Your task to perform on an android device: Go to display settings Image 0: 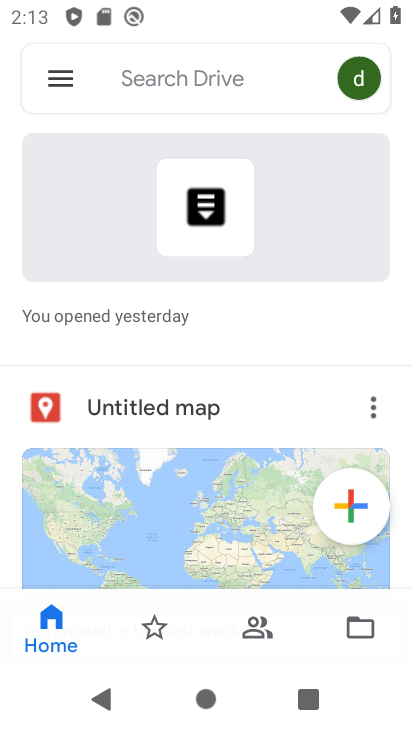
Step 0: press home button
Your task to perform on an android device: Go to display settings Image 1: 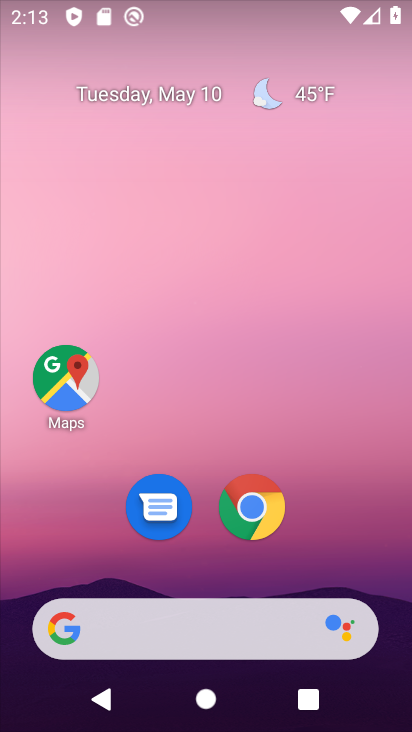
Step 1: drag from (323, 433) to (214, 153)
Your task to perform on an android device: Go to display settings Image 2: 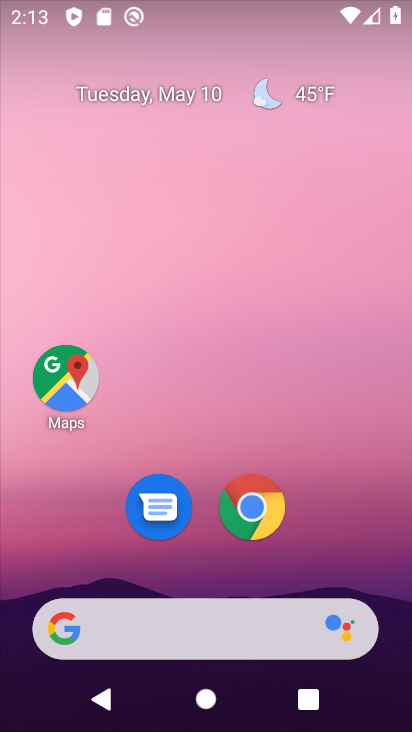
Step 2: drag from (339, 524) to (73, 96)
Your task to perform on an android device: Go to display settings Image 3: 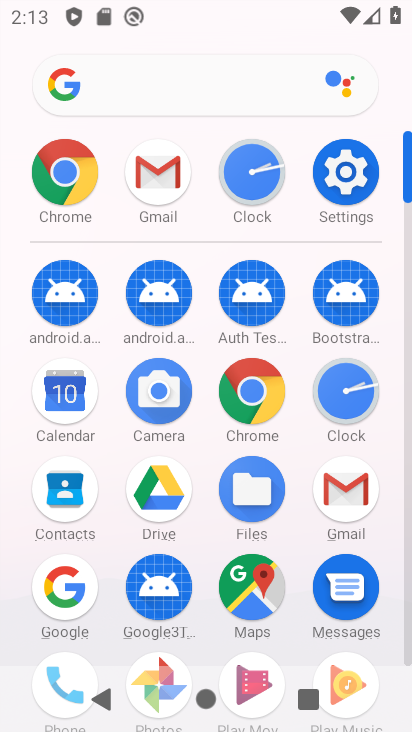
Step 3: click (342, 180)
Your task to perform on an android device: Go to display settings Image 4: 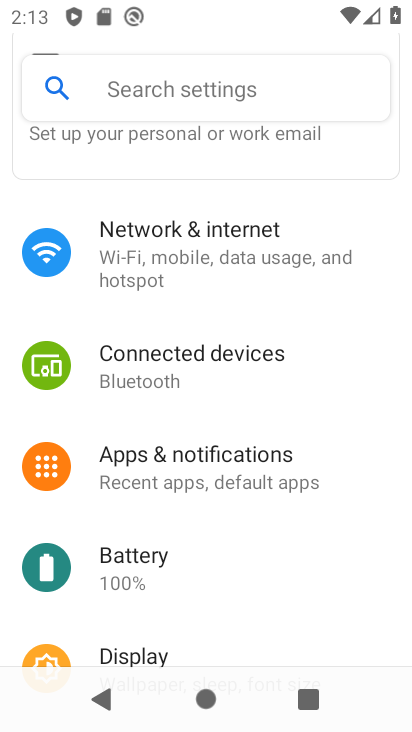
Step 4: click (176, 648)
Your task to perform on an android device: Go to display settings Image 5: 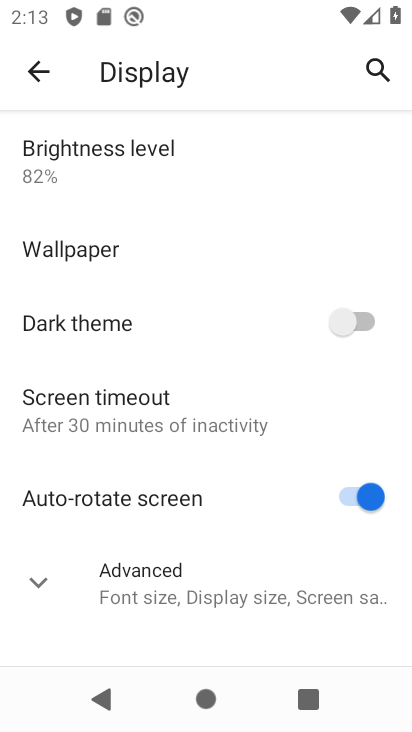
Step 5: click (165, 601)
Your task to perform on an android device: Go to display settings Image 6: 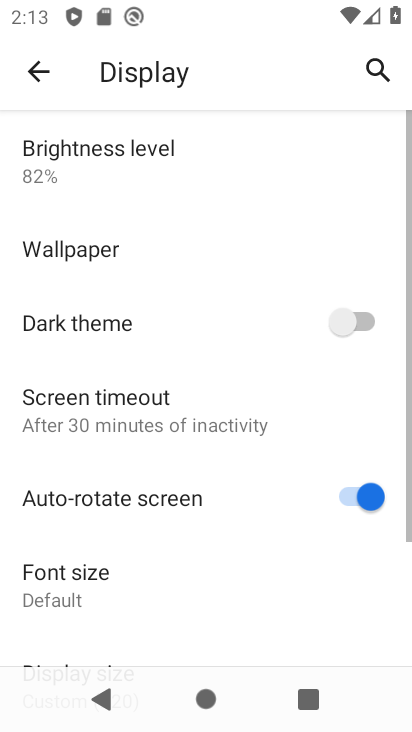
Step 6: task complete